Your task to perform on an android device: turn off location history Image 0: 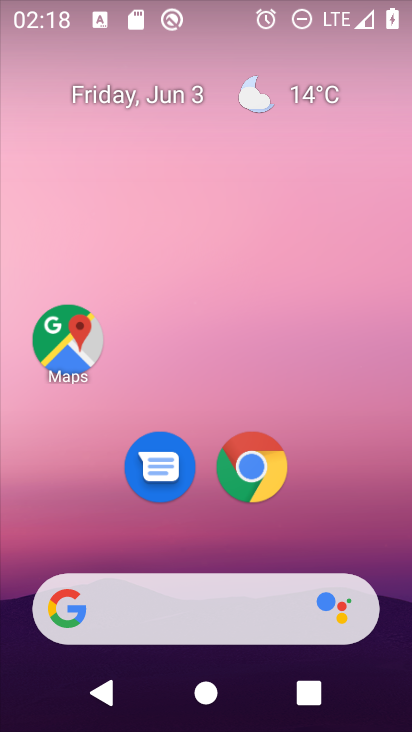
Step 0: click (69, 337)
Your task to perform on an android device: turn off location history Image 1: 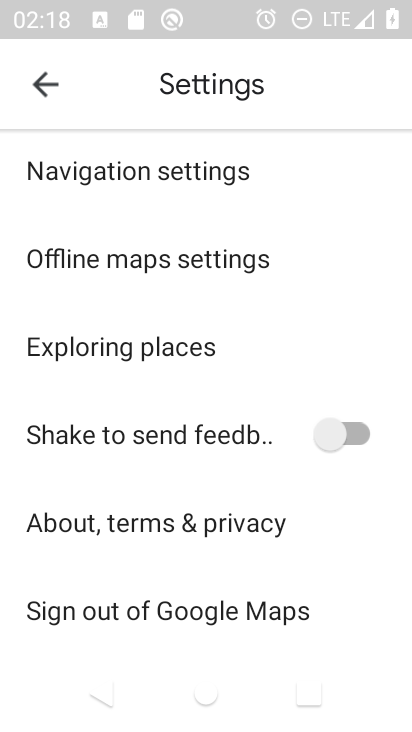
Step 1: drag from (311, 276) to (274, 542)
Your task to perform on an android device: turn off location history Image 2: 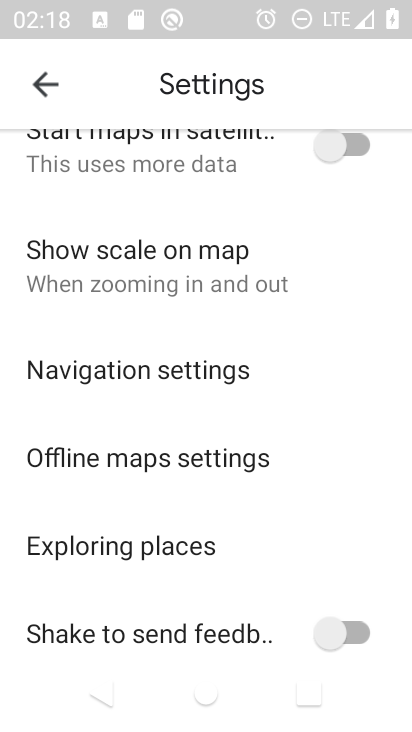
Step 2: drag from (287, 232) to (255, 567)
Your task to perform on an android device: turn off location history Image 3: 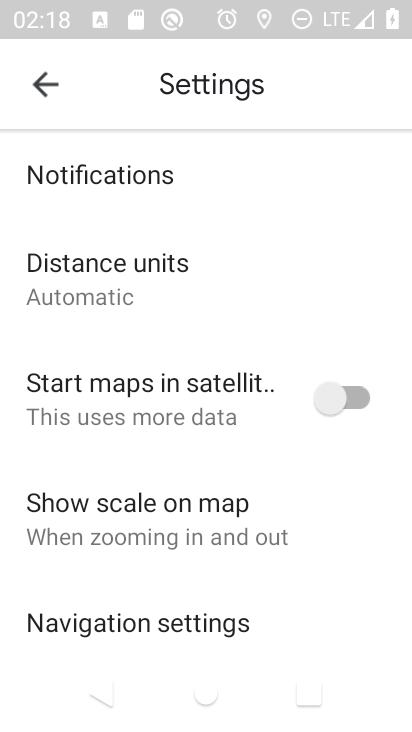
Step 3: drag from (312, 244) to (254, 589)
Your task to perform on an android device: turn off location history Image 4: 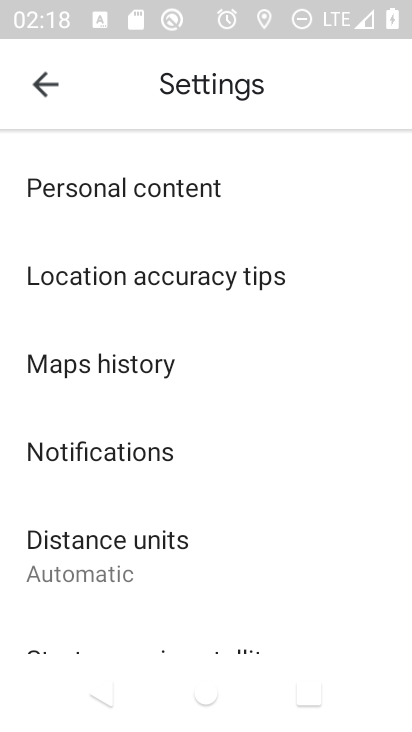
Step 4: drag from (312, 275) to (275, 562)
Your task to perform on an android device: turn off location history Image 5: 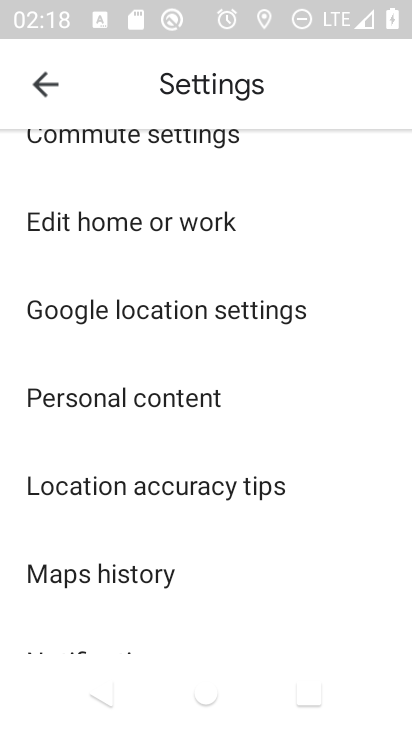
Step 5: click (95, 396)
Your task to perform on an android device: turn off location history Image 6: 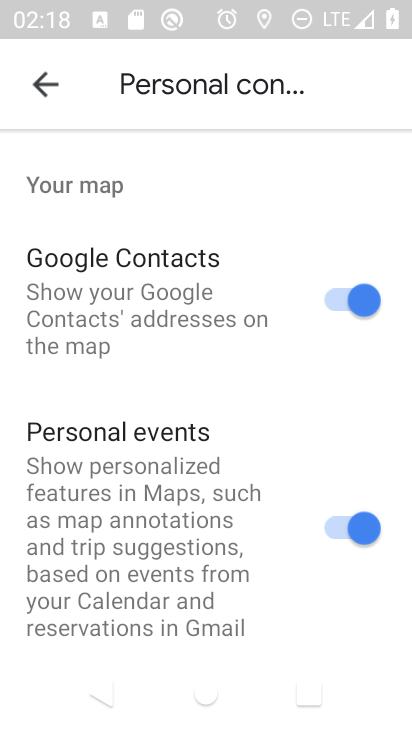
Step 6: task complete